Your task to perform on an android device: change your default location settings in chrome Image 0: 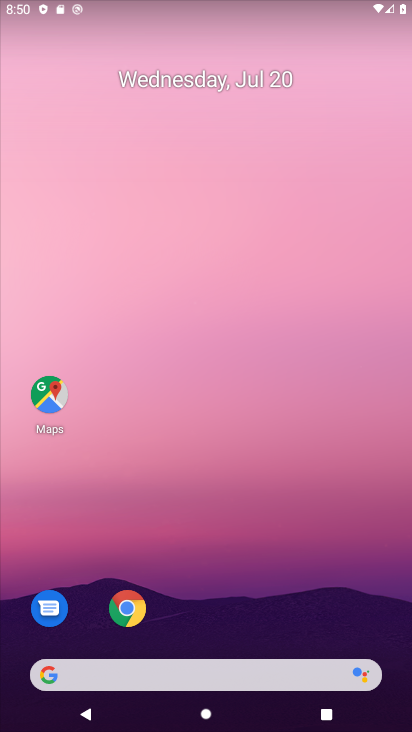
Step 0: drag from (280, 426) to (272, 186)
Your task to perform on an android device: change your default location settings in chrome Image 1: 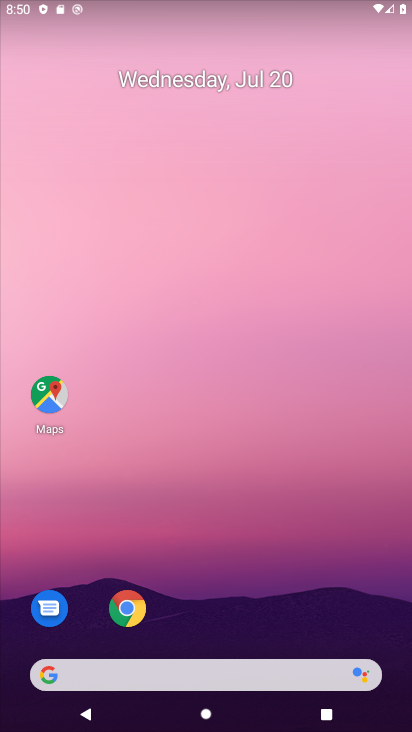
Step 1: click (174, 91)
Your task to perform on an android device: change your default location settings in chrome Image 2: 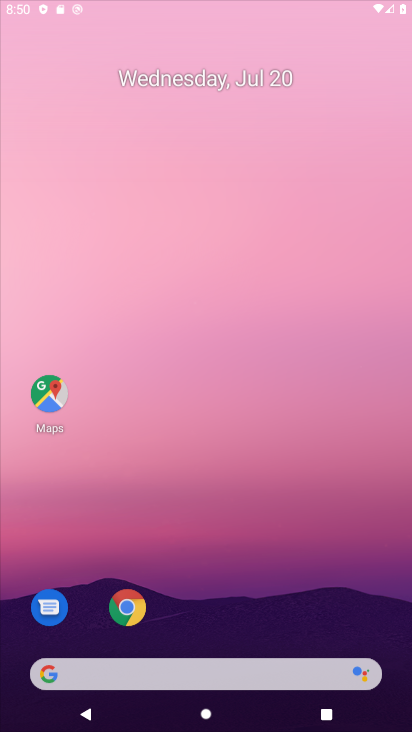
Step 2: drag from (189, 646) to (124, 138)
Your task to perform on an android device: change your default location settings in chrome Image 3: 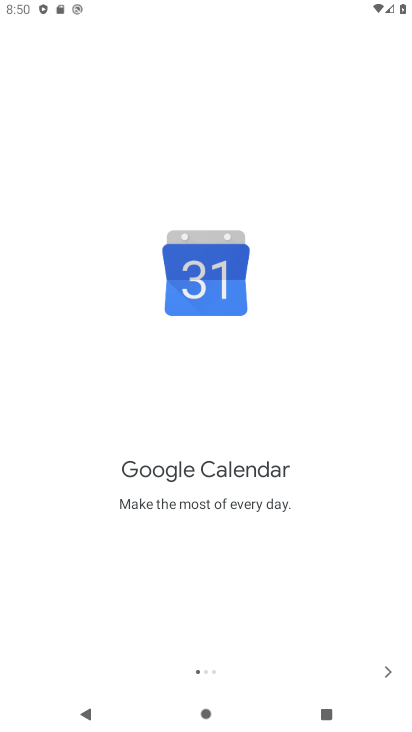
Step 3: press back button
Your task to perform on an android device: change your default location settings in chrome Image 4: 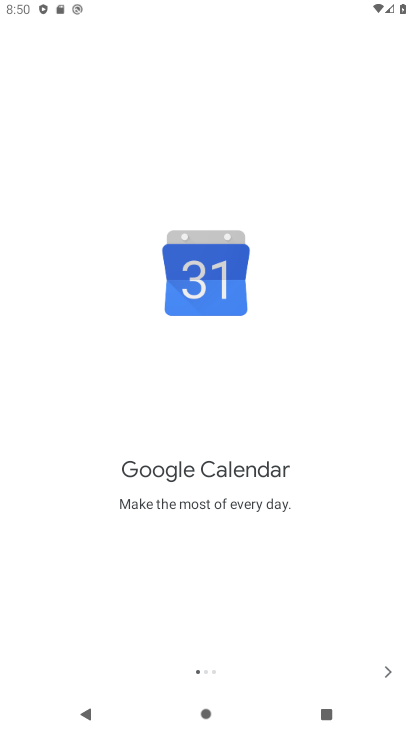
Step 4: press back button
Your task to perform on an android device: change your default location settings in chrome Image 5: 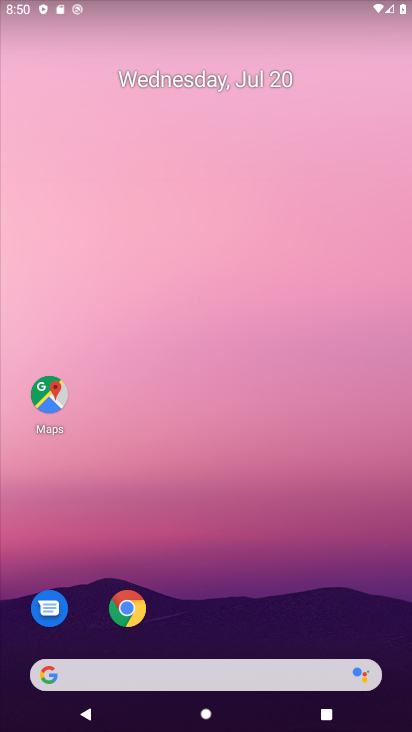
Step 5: drag from (175, 621) to (173, 61)
Your task to perform on an android device: change your default location settings in chrome Image 6: 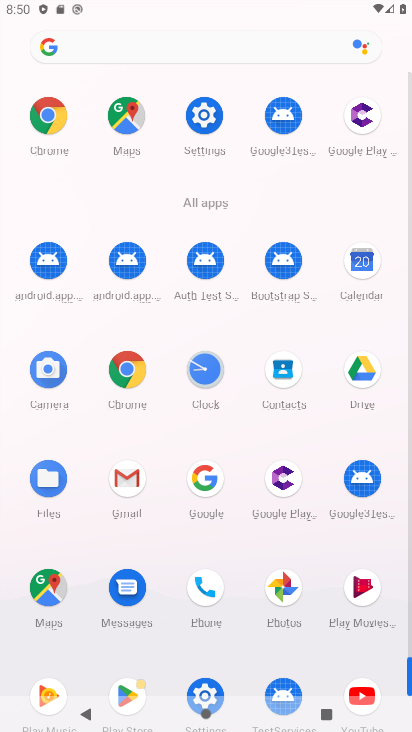
Step 6: click (50, 113)
Your task to perform on an android device: change your default location settings in chrome Image 7: 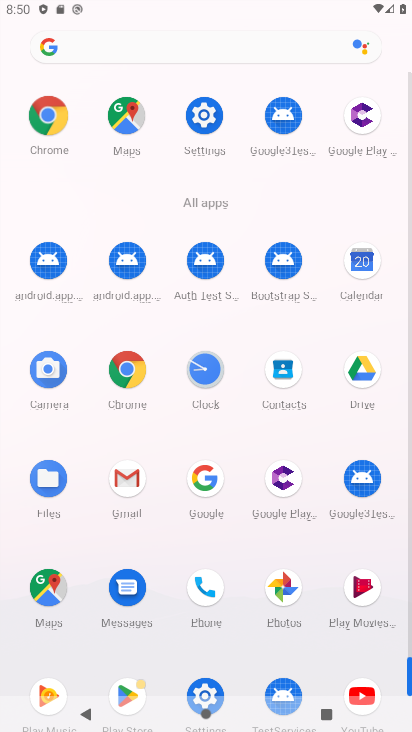
Step 7: click (47, 113)
Your task to perform on an android device: change your default location settings in chrome Image 8: 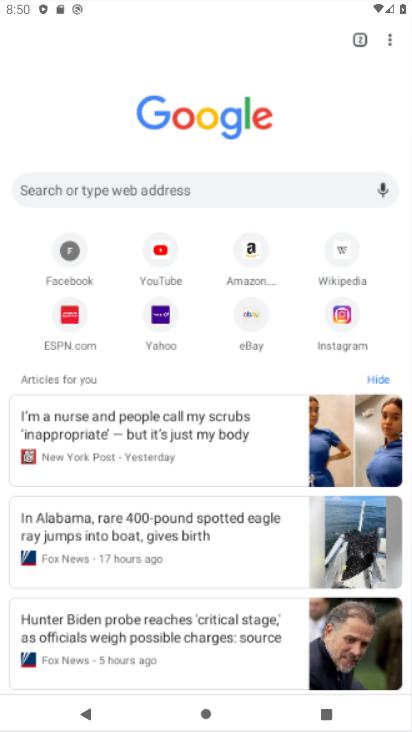
Step 8: click (42, 112)
Your task to perform on an android device: change your default location settings in chrome Image 9: 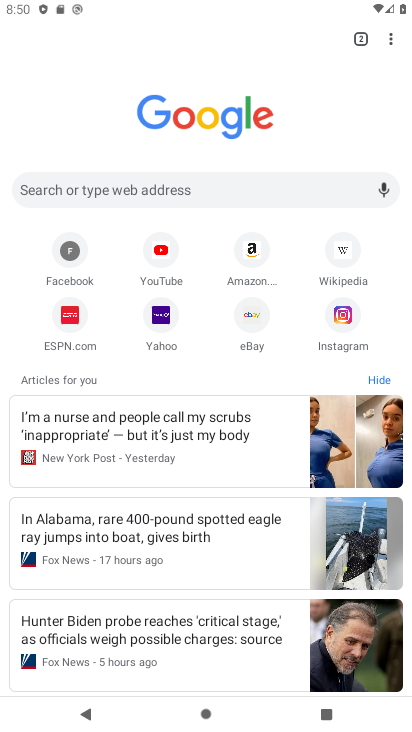
Step 9: drag from (389, 39) to (242, 321)
Your task to perform on an android device: change your default location settings in chrome Image 10: 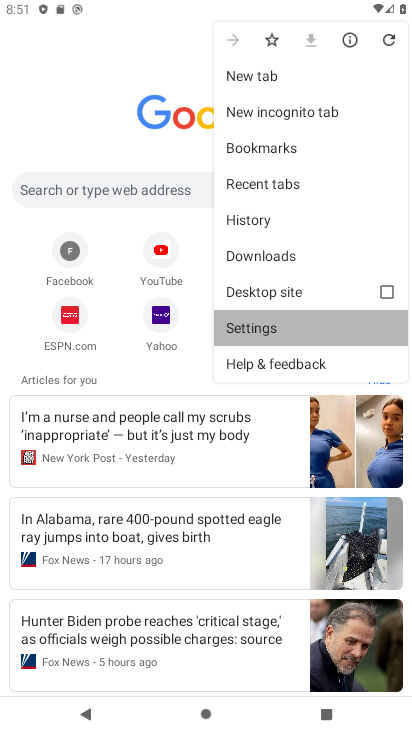
Step 10: click (242, 321)
Your task to perform on an android device: change your default location settings in chrome Image 11: 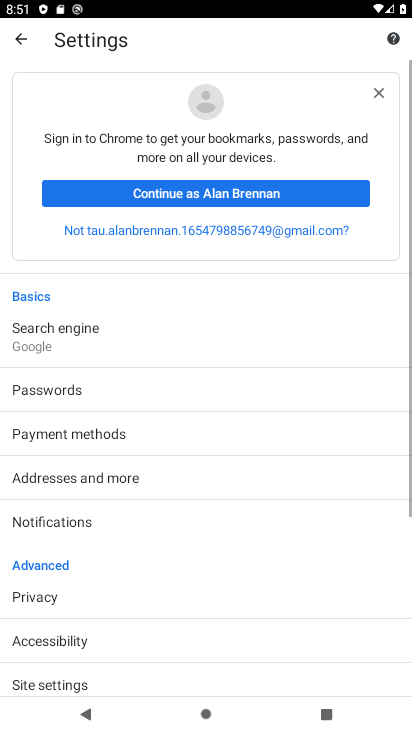
Step 11: drag from (78, 568) to (67, 207)
Your task to perform on an android device: change your default location settings in chrome Image 12: 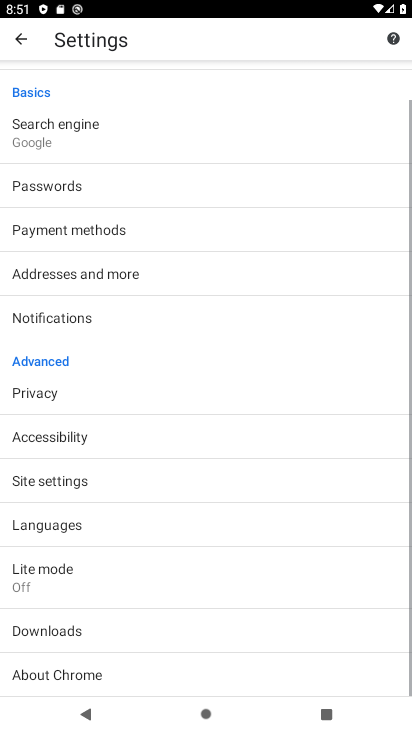
Step 12: drag from (126, 441) to (107, 221)
Your task to perform on an android device: change your default location settings in chrome Image 13: 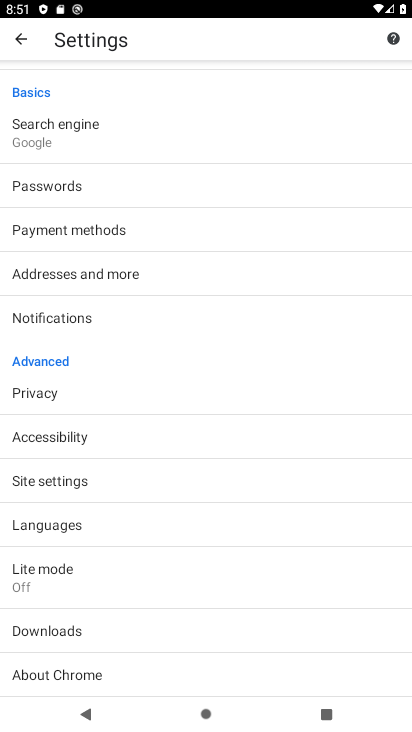
Step 13: click (36, 527)
Your task to perform on an android device: change your default location settings in chrome Image 14: 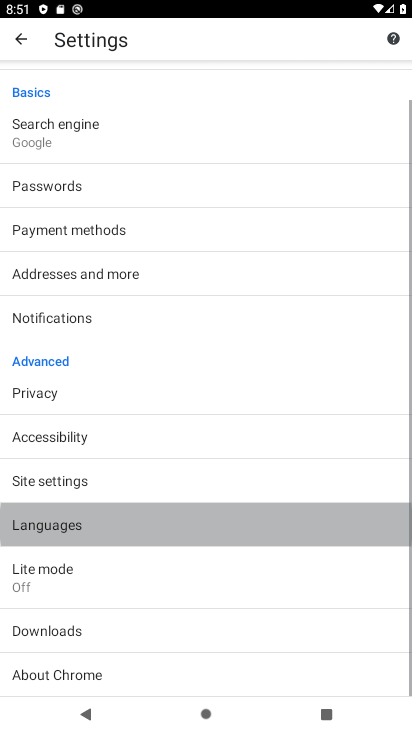
Step 14: click (36, 527)
Your task to perform on an android device: change your default location settings in chrome Image 15: 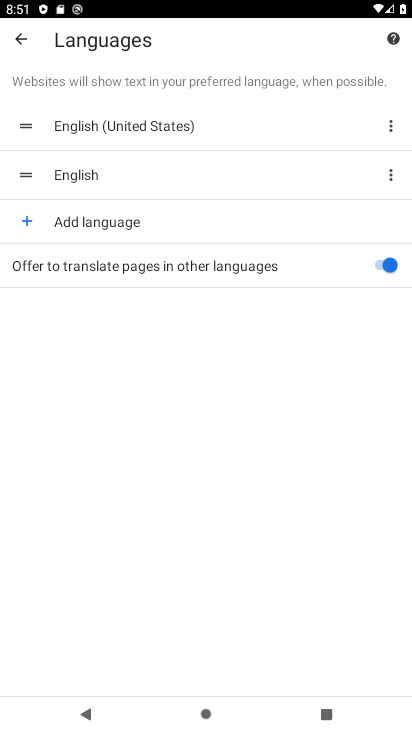
Step 15: click (19, 40)
Your task to perform on an android device: change your default location settings in chrome Image 16: 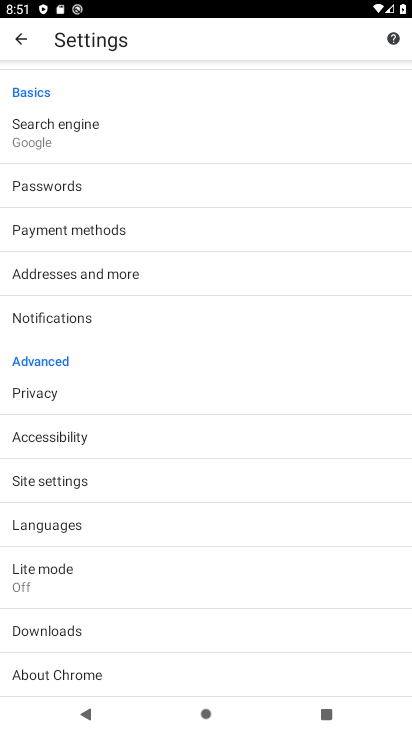
Step 16: click (48, 477)
Your task to perform on an android device: change your default location settings in chrome Image 17: 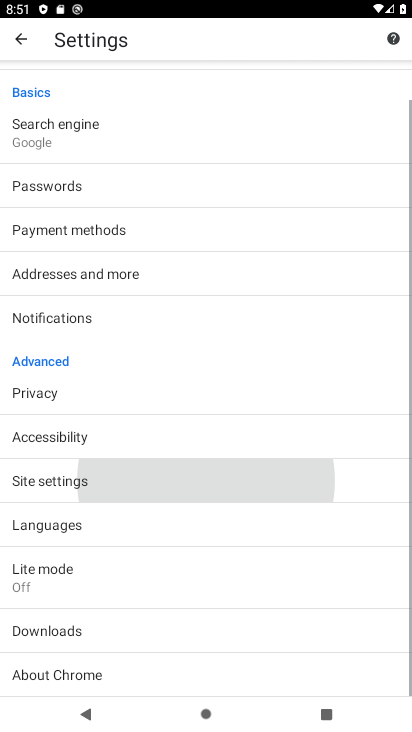
Step 17: click (48, 477)
Your task to perform on an android device: change your default location settings in chrome Image 18: 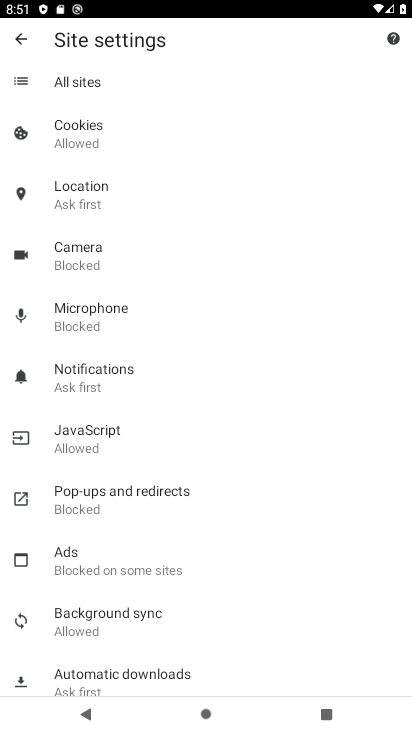
Step 18: click (75, 199)
Your task to perform on an android device: change your default location settings in chrome Image 19: 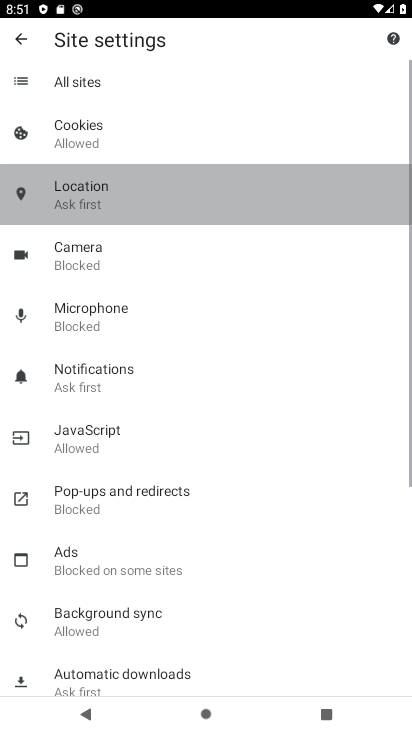
Step 19: click (72, 193)
Your task to perform on an android device: change your default location settings in chrome Image 20: 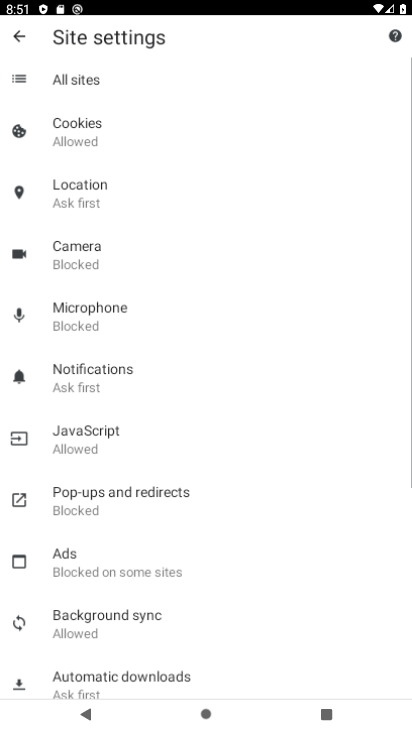
Step 20: click (73, 189)
Your task to perform on an android device: change your default location settings in chrome Image 21: 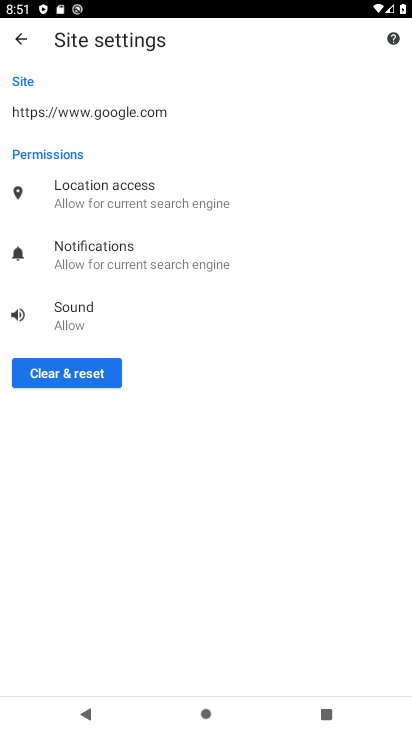
Step 21: click (78, 245)
Your task to perform on an android device: change your default location settings in chrome Image 22: 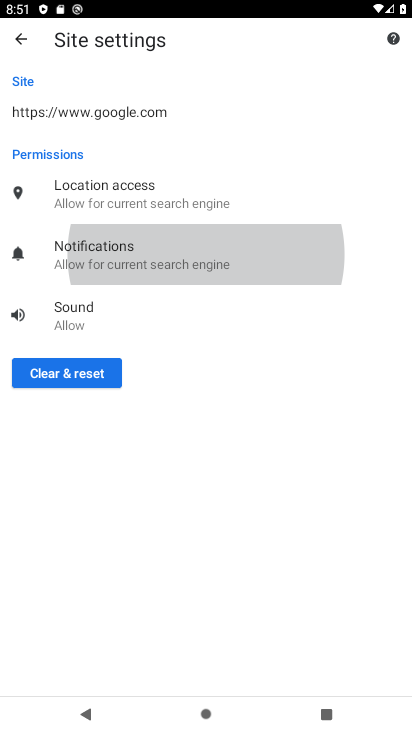
Step 22: click (80, 246)
Your task to perform on an android device: change your default location settings in chrome Image 23: 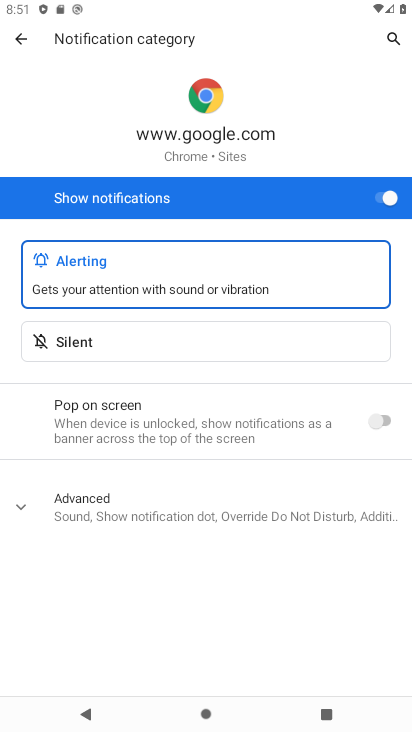
Step 23: click (18, 33)
Your task to perform on an android device: change your default location settings in chrome Image 24: 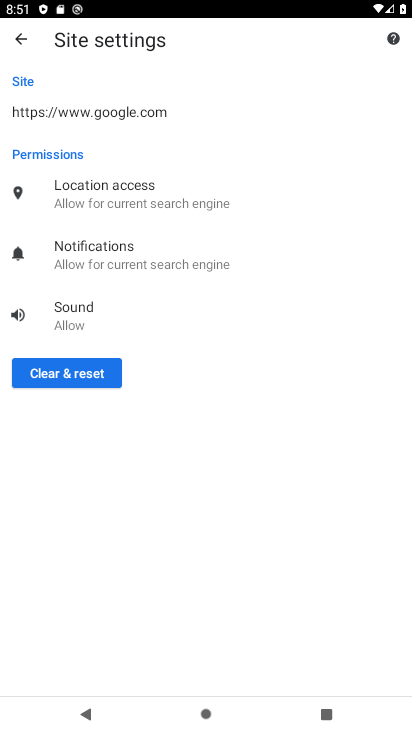
Step 24: click (111, 198)
Your task to perform on an android device: change your default location settings in chrome Image 25: 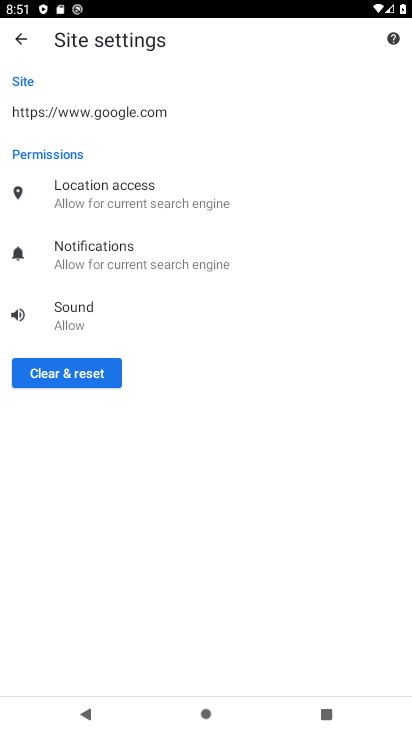
Step 25: click (111, 198)
Your task to perform on an android device: change your default location settings in chrome Image 26: 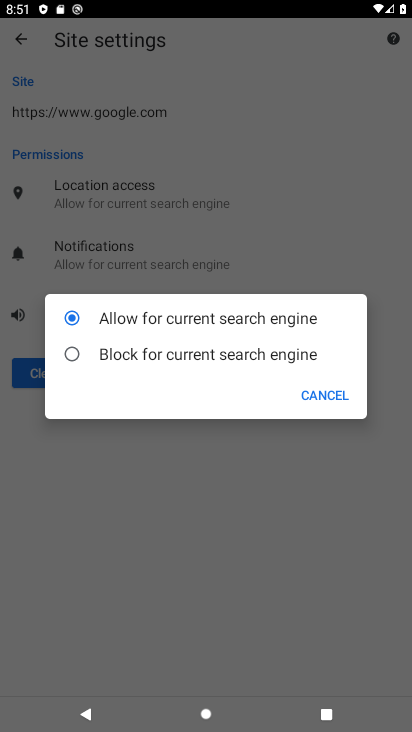
Step 26: click (67, 357)
Your task to perform on an android device: change your default location settings in chrome Image 27: 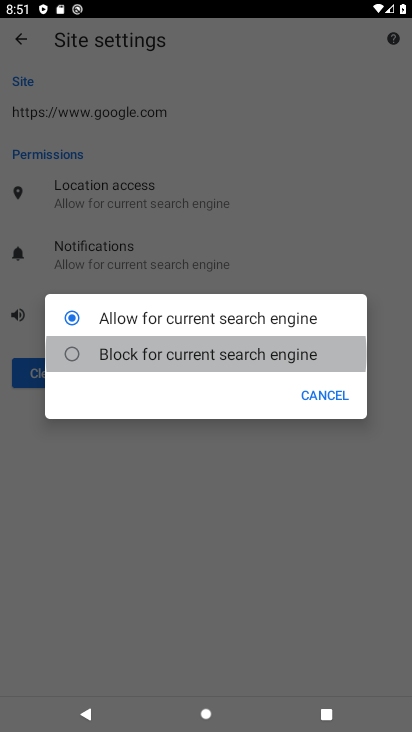
Step 27: click (71, 354)
Your task to perform on an android device: change your default location settings in chrome Image 28: 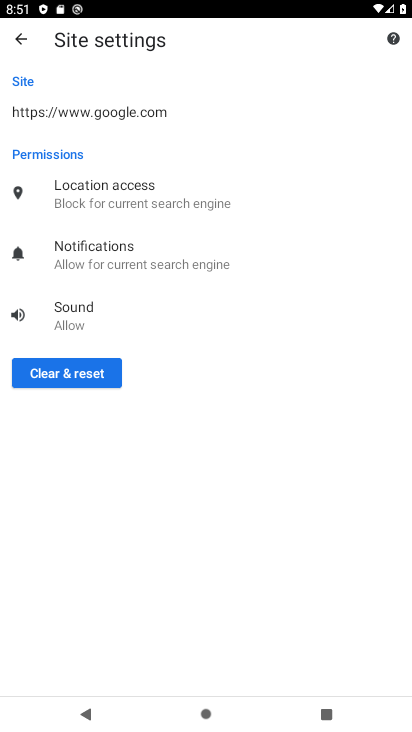
Step 28: click (14, 37)
Your task to perform on an android device: change your default location settings in chrome Image 29: 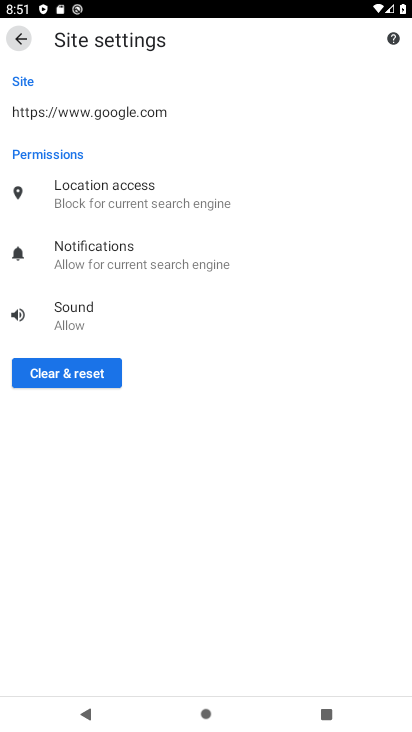
Step 29: click (19, 42)
Your task to perform on an android device: change your default location settings in chrome Image 30: 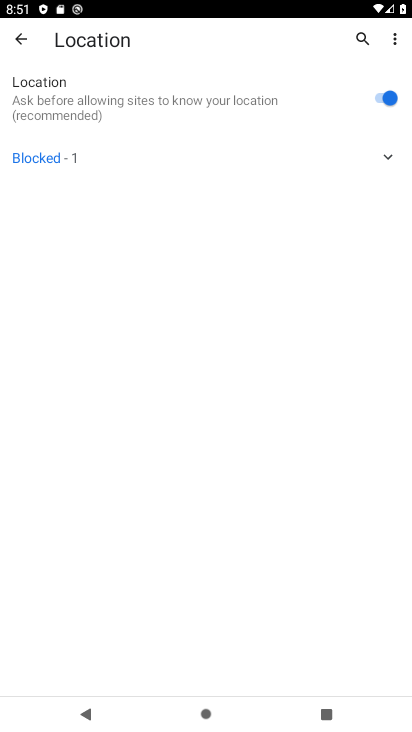
Step 30: click (20, 33)
Your task to perform on an android device: change your default location settings in chrome Image 31: 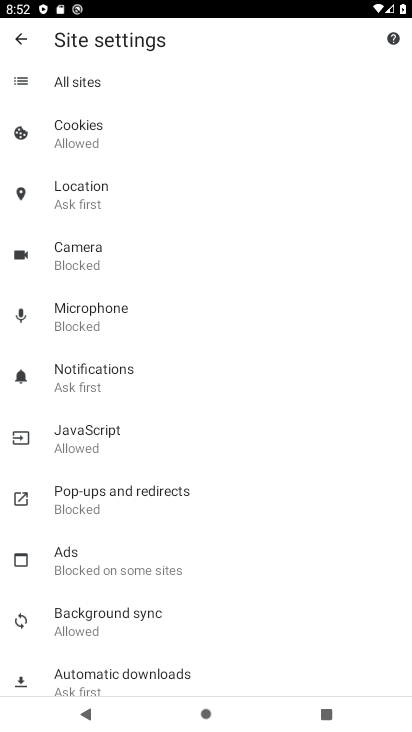
Step 31: click (66, 188)
Your task to perform on an android device: change your default location settings in chrome Image 32: 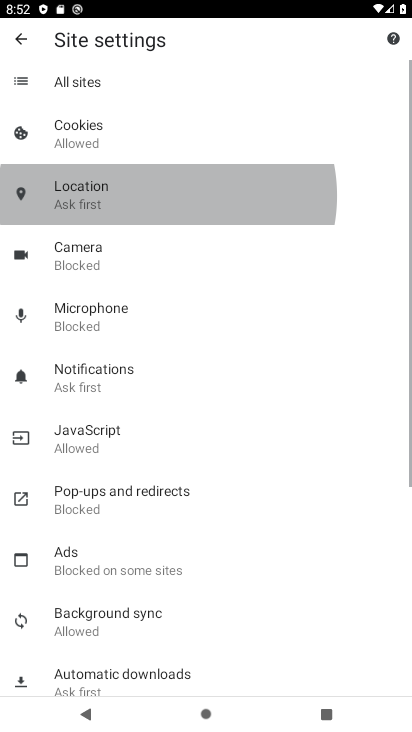
Step 32: click (68, 188)
Your task to perform on an android device: change your default location settings in chrome Image 33: 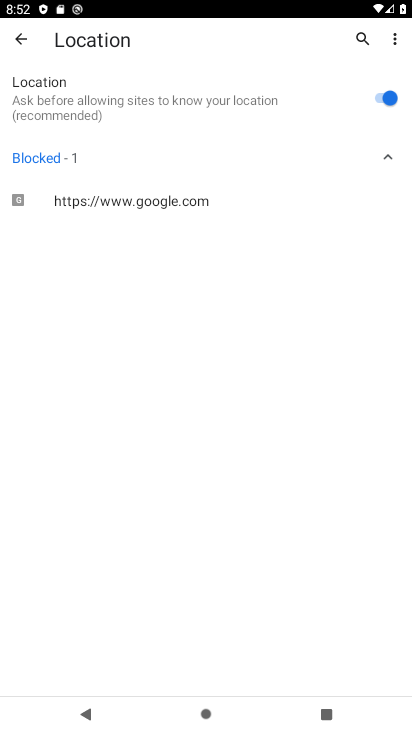
Step 33: click (388, 98)
Your task to perform on an android device: change your default location settings in chrome Image 34: 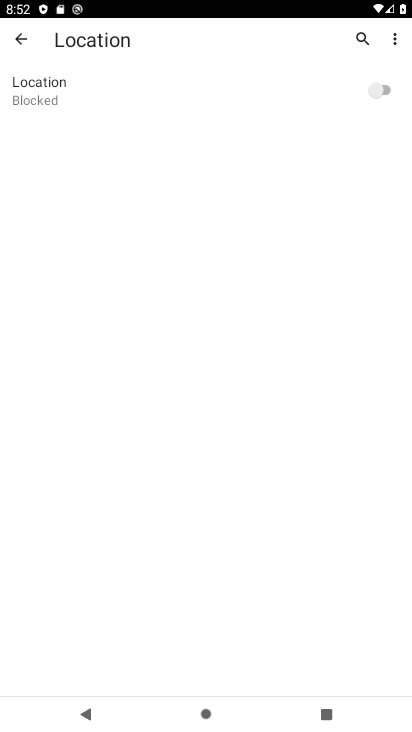
Step 34: task complete